Your task to perform on an android device: Show me popular videos on Youtube Image 0: 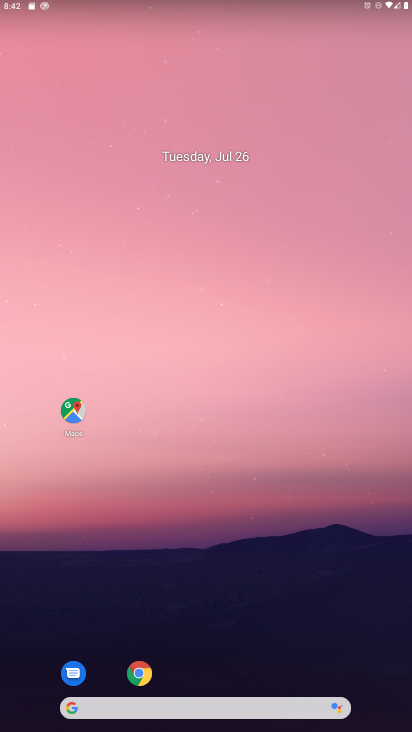
Step 0: drag from (324, 635) to (229, 14)
Your task to perform on an android device: Show me popular videos on Youtube Image 1: 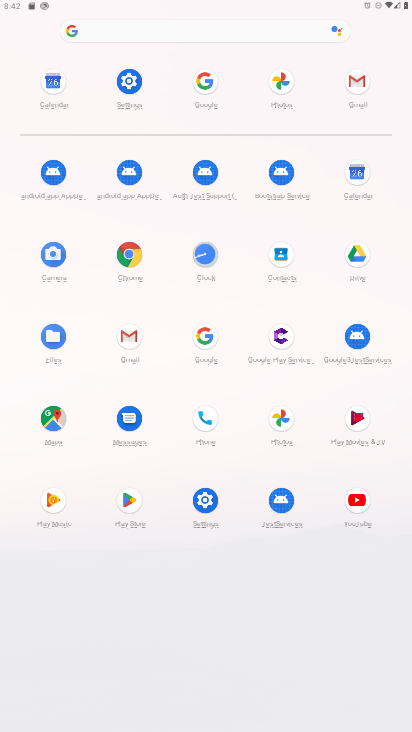
Step 1: click (354, 516)
Your task to perform on an android device: Show me popular videos on Youtube Image 2: 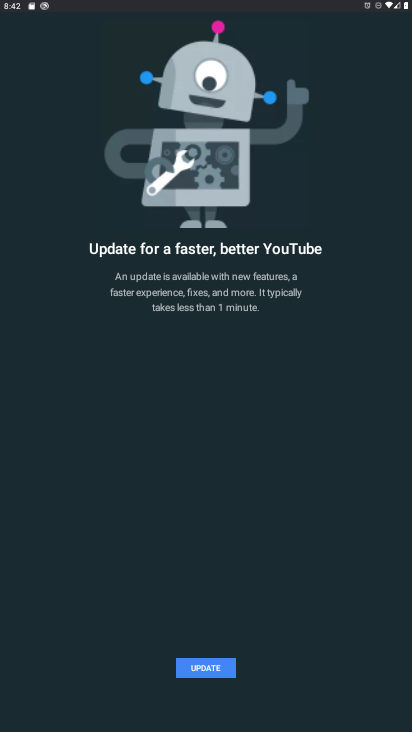
Step 2: click (212, 663)
Your task to perform on an android device: Show me popular videos on Youtube Image 3: 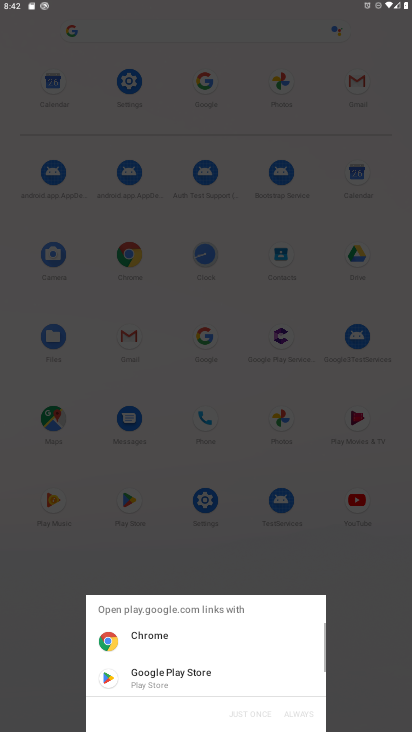
Step 3: click (127, 672)
Your task to perform on an android device: Show me popular videos on Youtube Image 4: 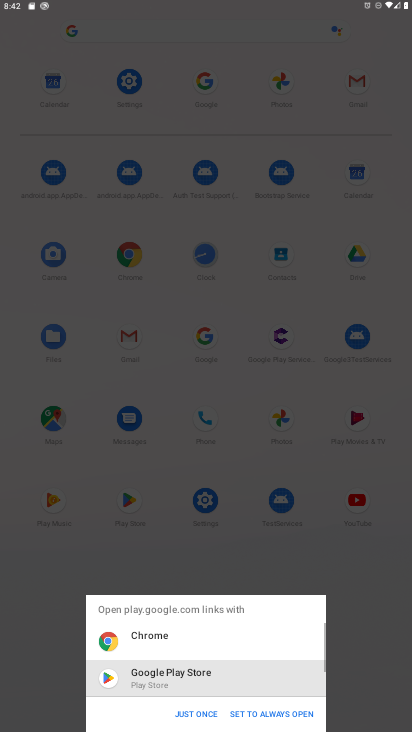
Step 4: click (203, 707)
Your task to perform on an android device: Show me popular videos on Youtube Image 5: 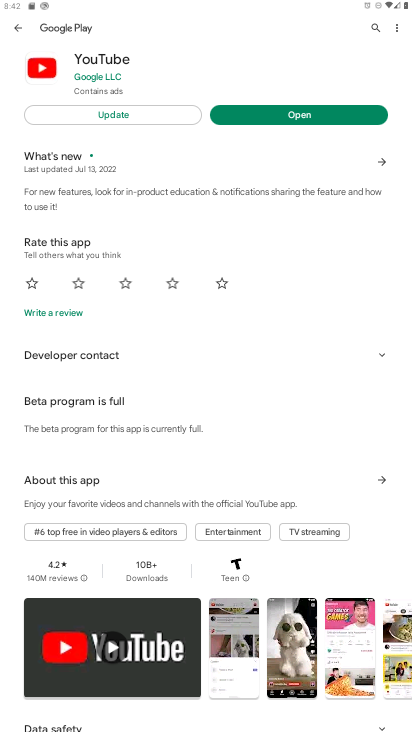
Step 5: click (95, 112)
Your task to perform on an android device: Show me popular videos on Youtube Image 6: 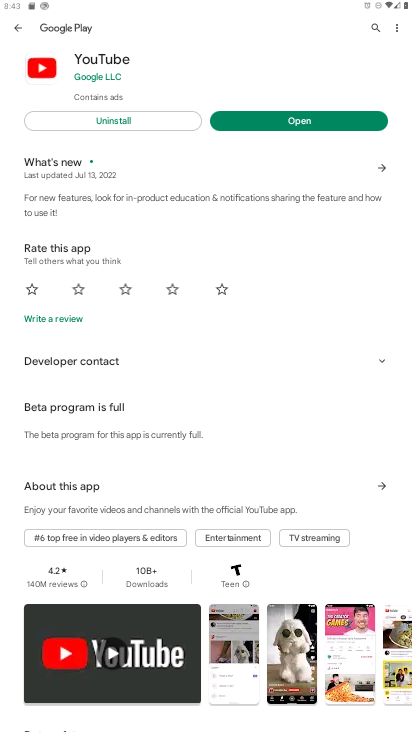
Step 6: task complete